Your task to perform on an android device: remove spam from my inbox in the gmail app Image 0: 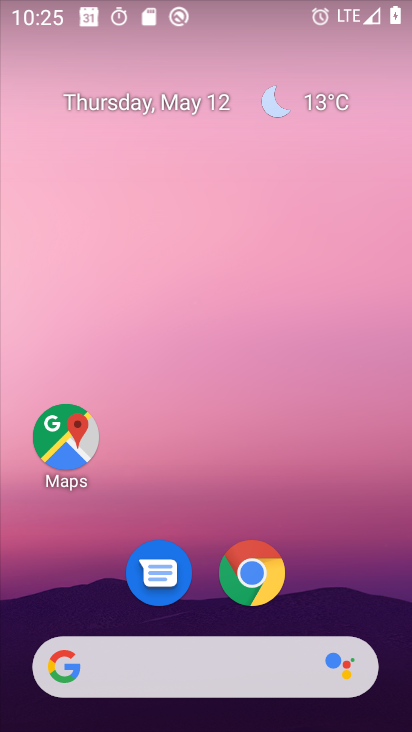
Step 0: drag from (398, 652) to (411, 202)
Your task to perform on an android device: remove spam from my inbox in the gmail app Image 1: 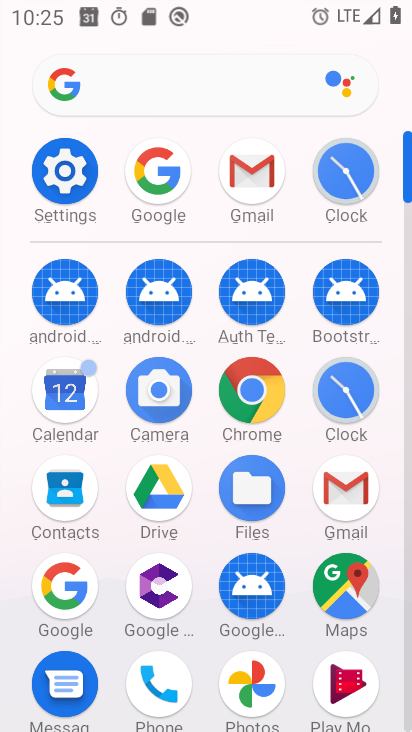
Step 1: click (345, 469)
Your task to perform on an android device: remove spam from my inbox in the gmail app Image 2: 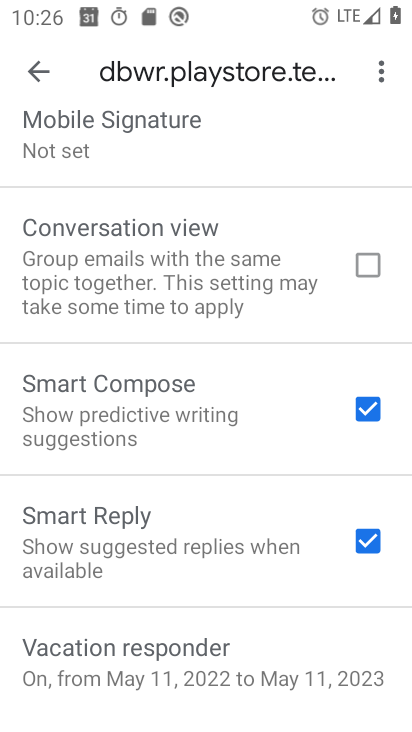
Step 2: click (34, 66)
Your task to perform on an android device: remove spam from my inbox in the gmail app Image 3: 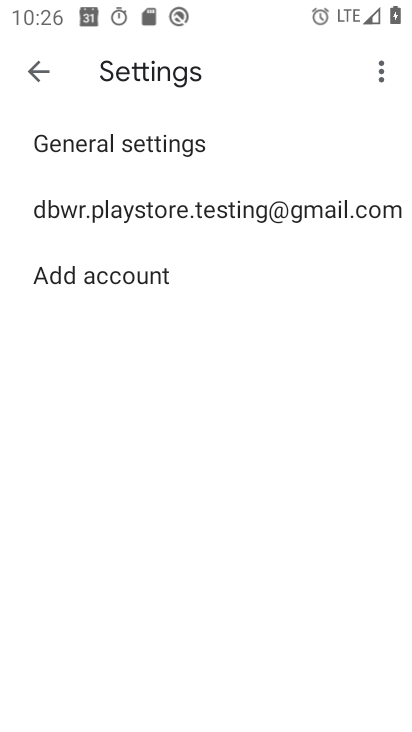
Step 3: click (34, 67)
Your task to perform on an android device: remove spam from my inbox in the gmail app Image 4: 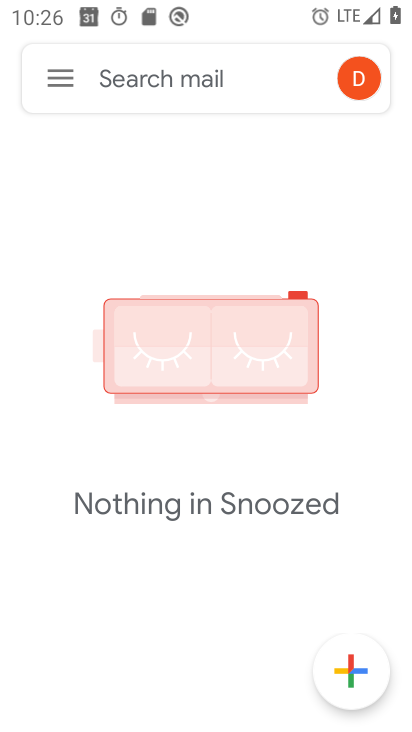
Step 4: click (62, 75)
Your task to perform on an android device: remove spam from my inbox in the gmail app Image 5: 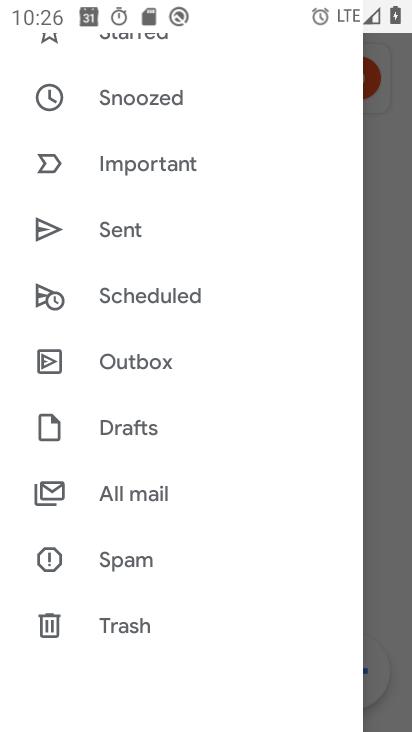
Step 5: click (107, 562)
Your task to perform on an android device: remove spam from my inbox in the gmail app Image 6: 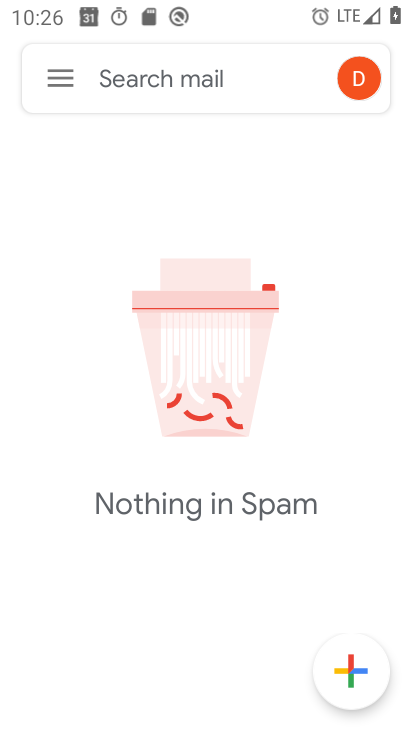
Step 6: task complete